Your task to perform on an android device: check out phone information Image 0: 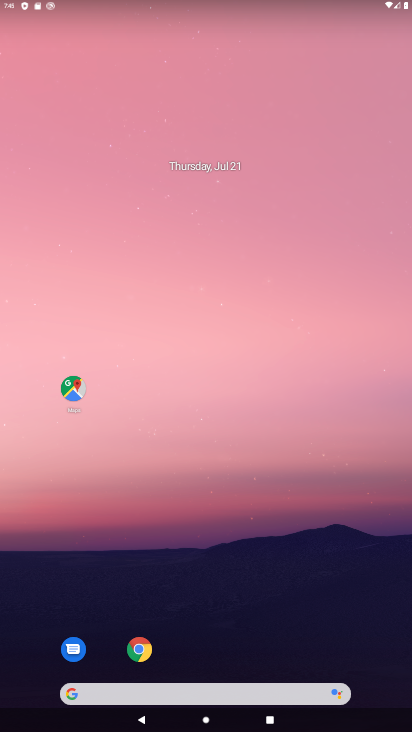
Step 0: drag from (303, 676) to (222, 30)
Your task to perform on an android device: check out phone information Image 1: 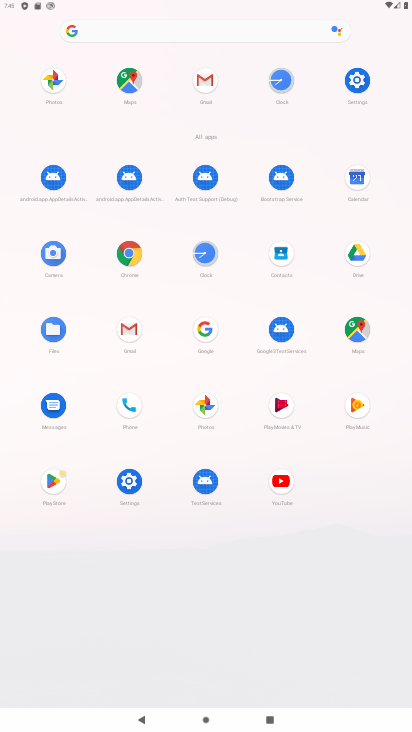
Step 1: click (358, 85)
Your task to perform on an android device: check out phone information Image 2: 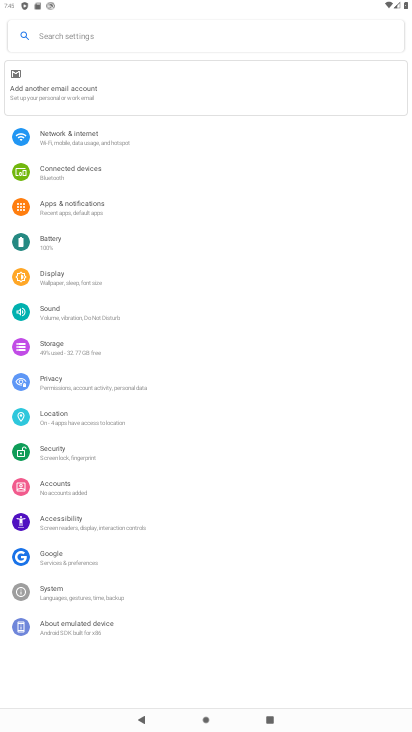
Step 2: click (141, 626)
Your task to perform on an android device: check out phone information Image 3: 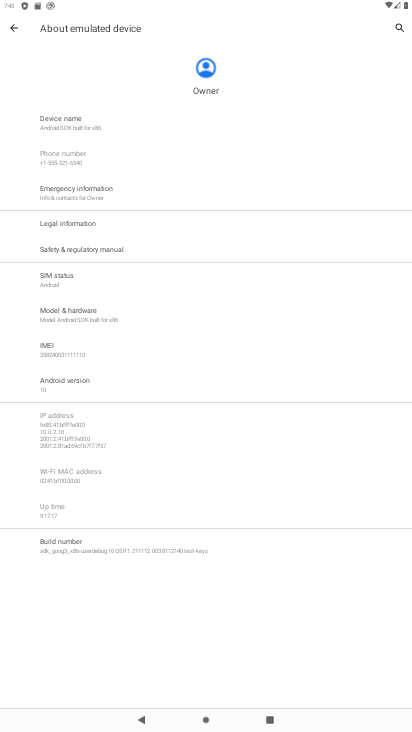
Step 3: task complete